Your task to perform on an android device: turn on bluetooth scan Image 0: 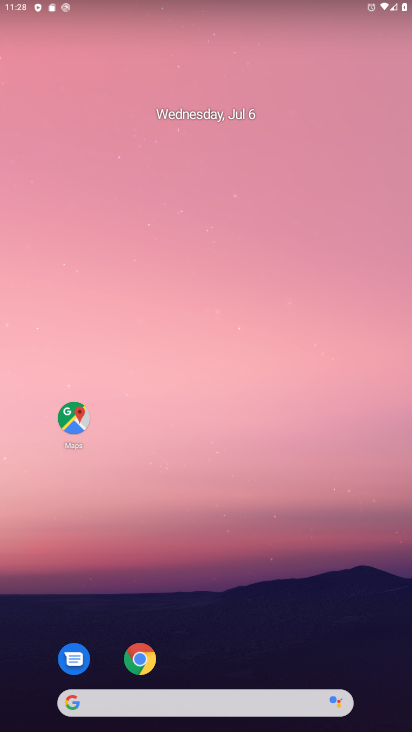
Step 0: drag from (202, 352) to (224, 512)
Your task to perform on an android device: turn on bluetooth scan Image 1: 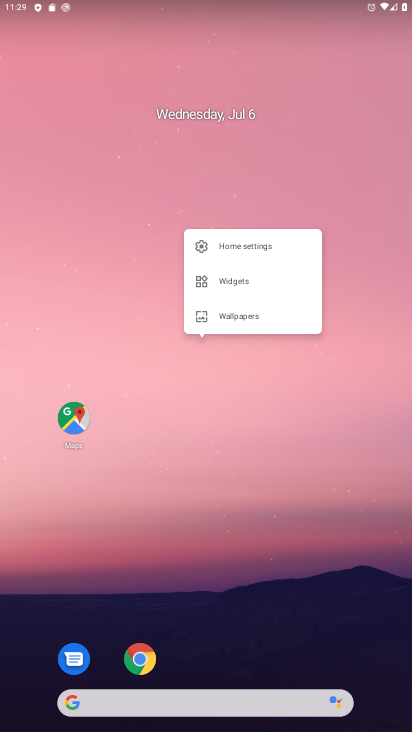
Step 1: click (124, 122)
Your task to perform on an android device: turn on bluetooth scan Image 2: 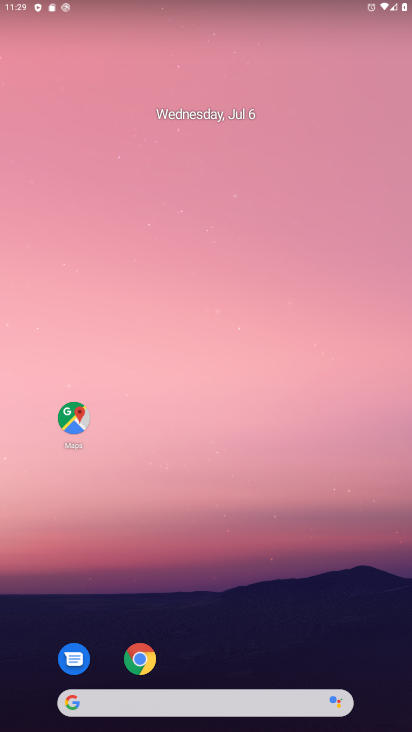
Step 2: drag from (168, 10) to (170, 597)
Your task to perform on an android device: turn on bluetooth scan Image 3: 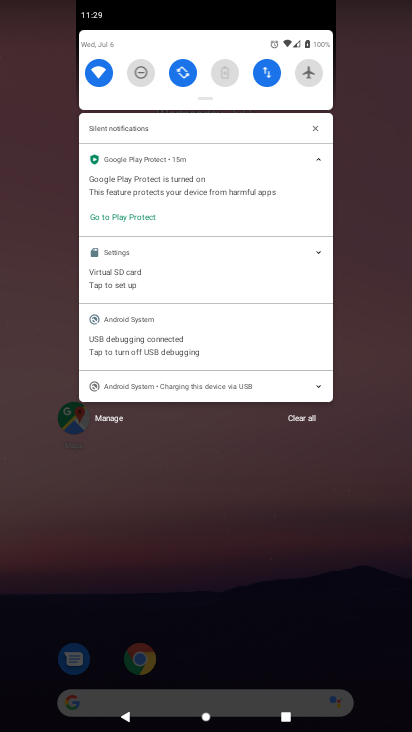
Step 3: drag from (203, 55) to (221, 600)
Your task to perform on an android device: turn on bluetooth scan Image 4: 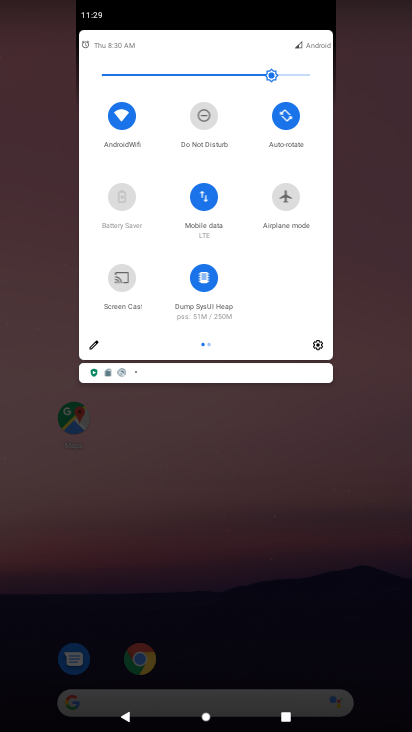
Step 4: click (312, 247)
Your task to perform on an android device: turn on bluetooth scan Image 5: 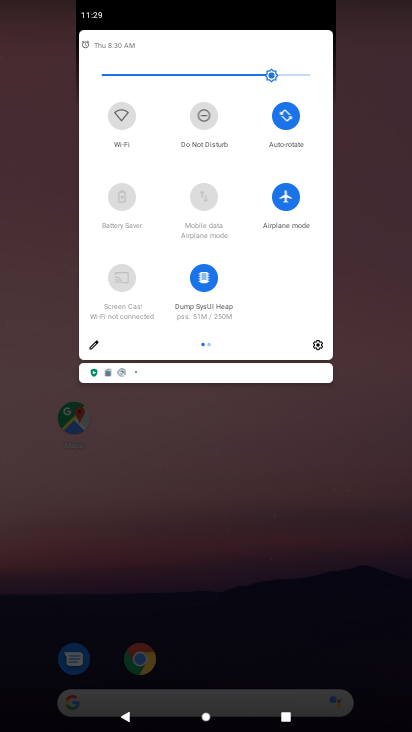
Step 5: click (317, 342)
Your task to perform on an android device: turn on bluetooth scan Image 6: 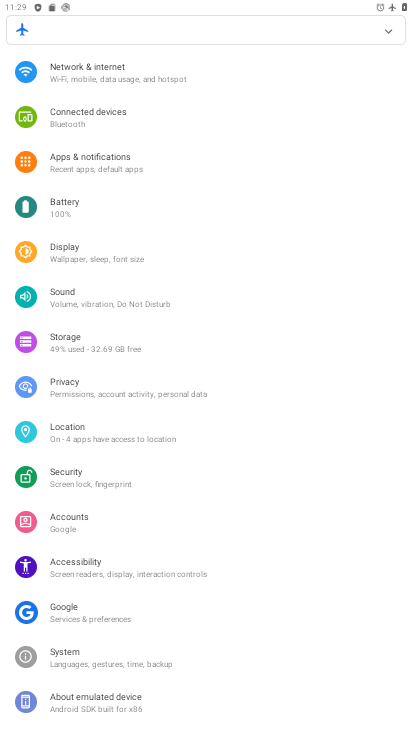
Step 6: click (109, 434)
Your task to perform on an android device: turn on bluetooth scan Image 7: 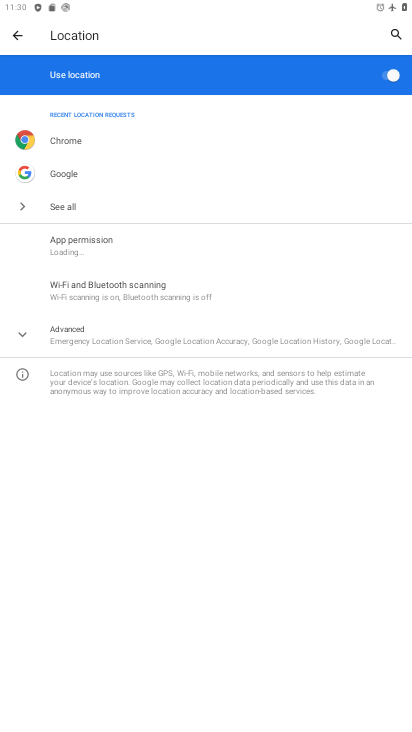
Step 7: click (141, 285)
Your task to perform on an android device: turn on bluetooth scan Image 8: 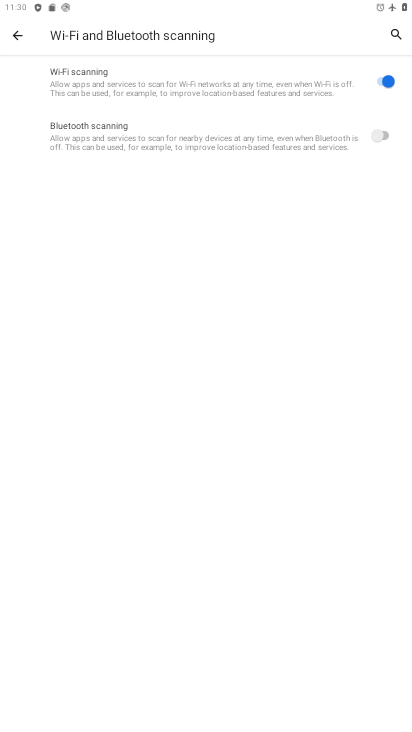
Step 8: click (384, 135)
Your task to perform on an android device: turn on bluetooth scan Image 9: 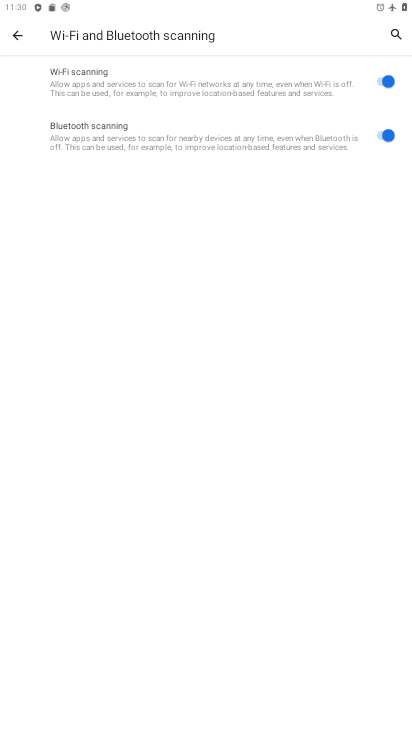
Step 9: task complete